Your task to perform on an android device: toggle show notifications on the lock screen Image 0: 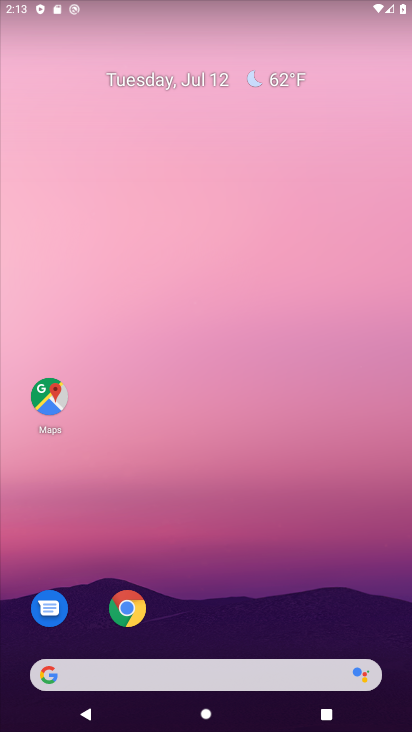
Step 0: drag from (219, 677) to (319, 98)
Your task to perform on an android device: toggle show notifications on the lock screen Image 1: 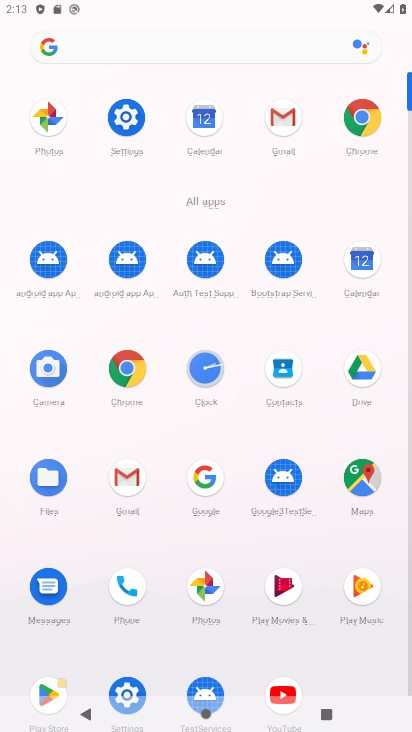
Step 1: click (126, 119)
Your task to perform on an android device: toggle show notifications on the lock screen Image 2: 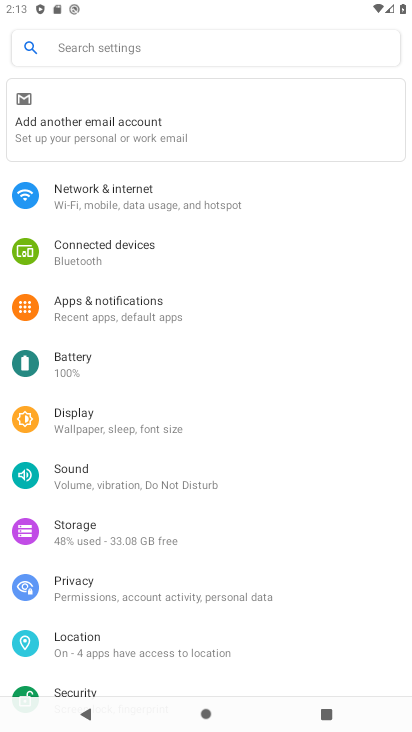
Step 2: click (170, 317)
Your task to perform on an android device: toggle show notifications on the lock screen Image 3: 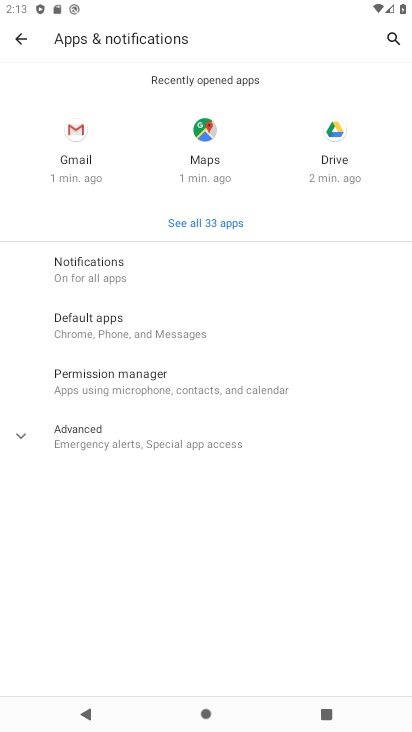
Step 3: click (110, 261)
Your task to perform on an android device: toggle show notifications on the lock screen Image 4: 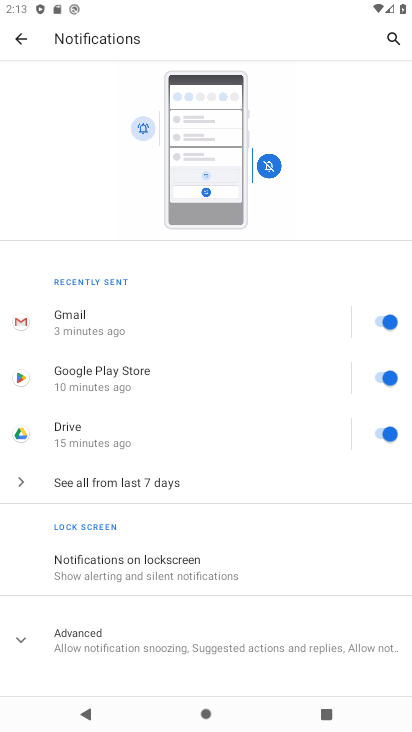
Step 4: click (196, 570)
Your task to perform on an android device: toggle show notifications on the lock screen Image 5: 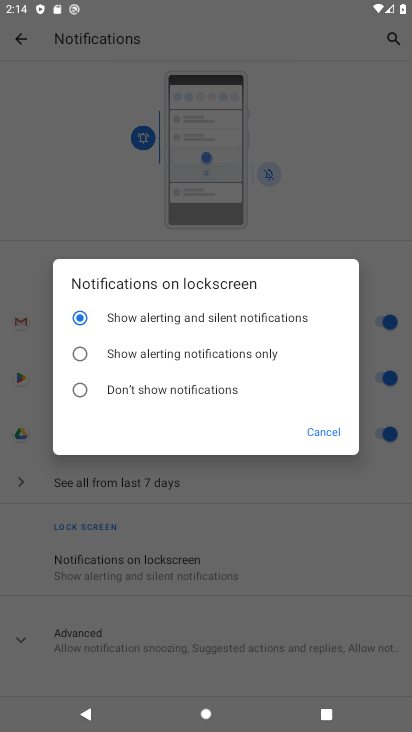
Step 5: click (77, 393)
Your task to perform on an android device: toggle show notifications on the lock screen Image 6: 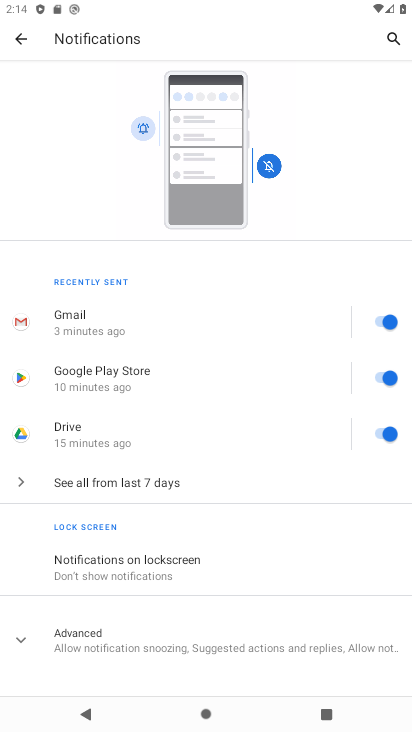
Step 6: task complete